Your task to perform on an android device: Open Wikipedia Image 0: 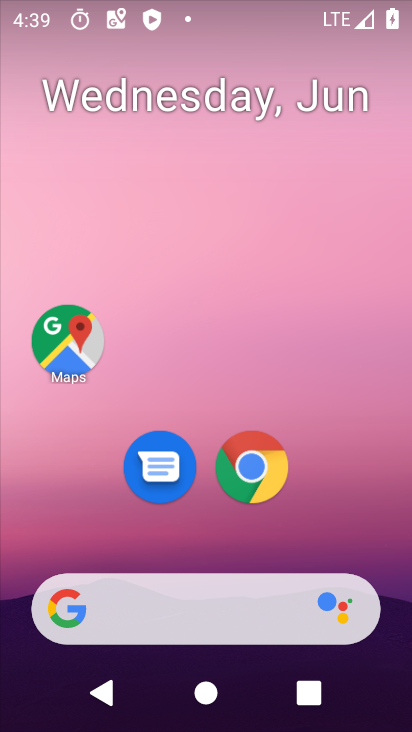
Step 0: click (273, 475)
Your task to perform on an android device: Open Wikipedia Image 1: 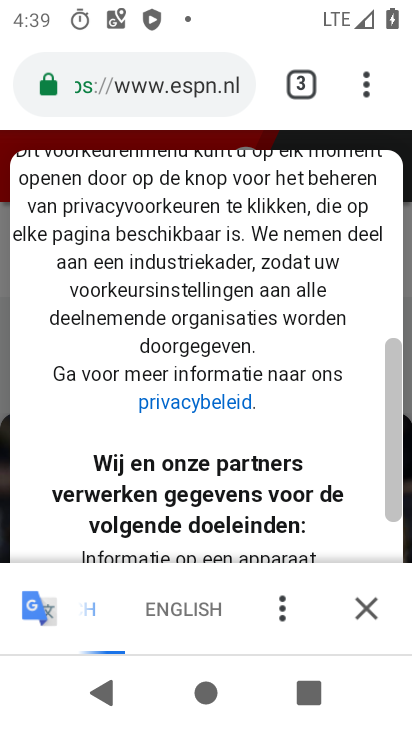
Step 1: click (370, 78)
Your task to perform on an android device: Open Wikipedia Image 2: 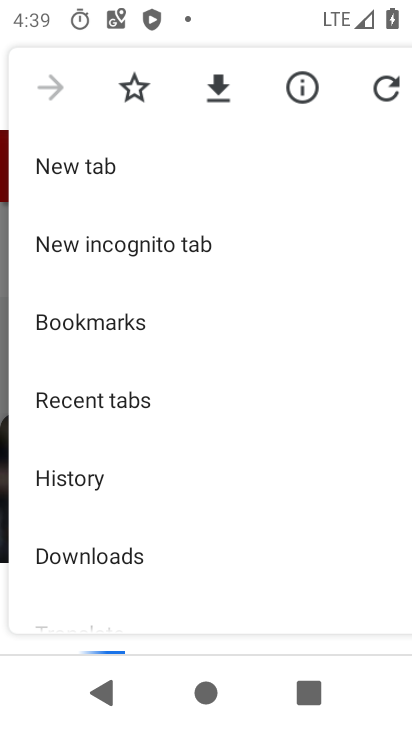
Step 2: click (116, 177)
Your task to perform on an android device: Open Wikipedia Image 3: 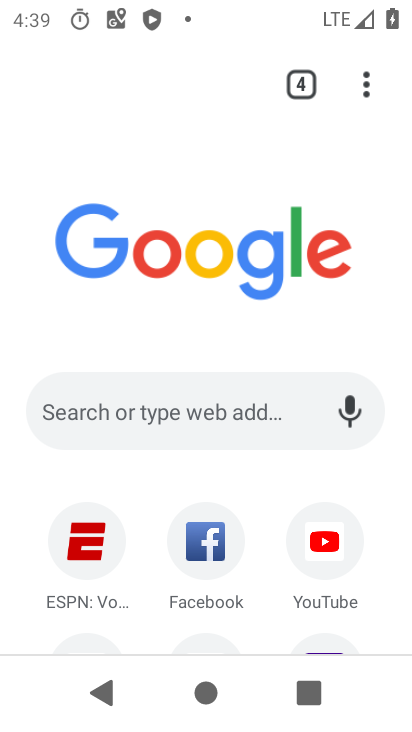
Step 3: drag from (269, 558) to (256, 155)
Your task to perform on an android device: Open Wikipedia Image 4: 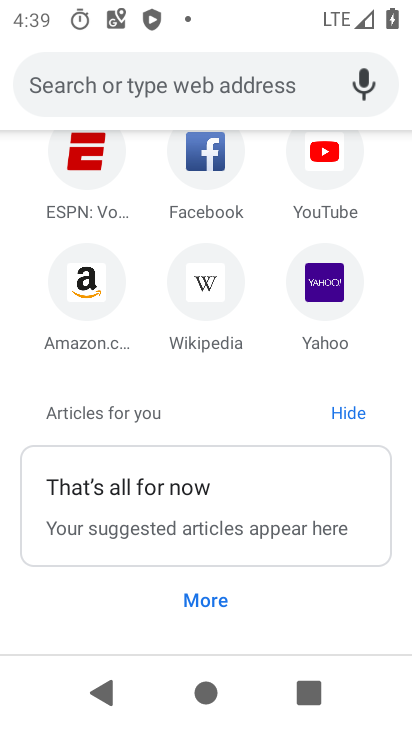
Step 4: click (205, 303)
Your task to perform on an android device: Open Wikipedia Image 5: 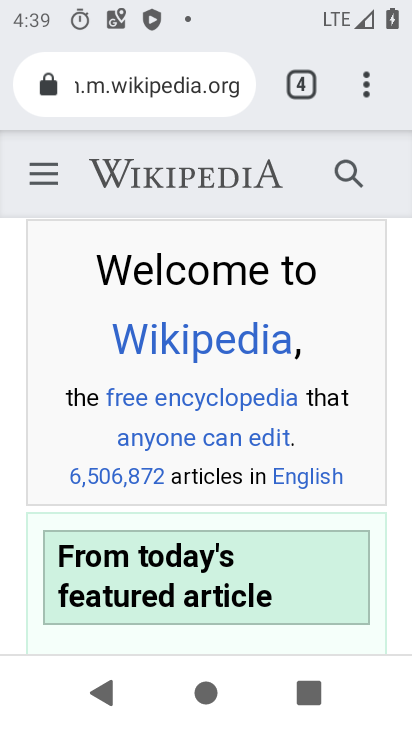
Step 5: task complete